Your task to perform on an android device: change timer sound Image 0: 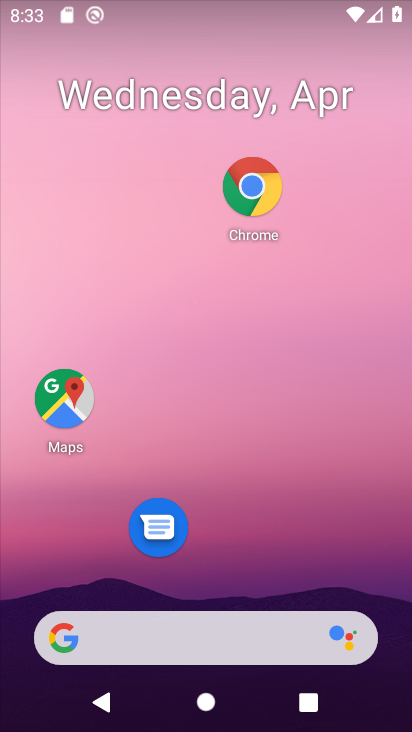
Step 0: click (318, 232)
Your task to perform on an android device: change timer sound Image 1: 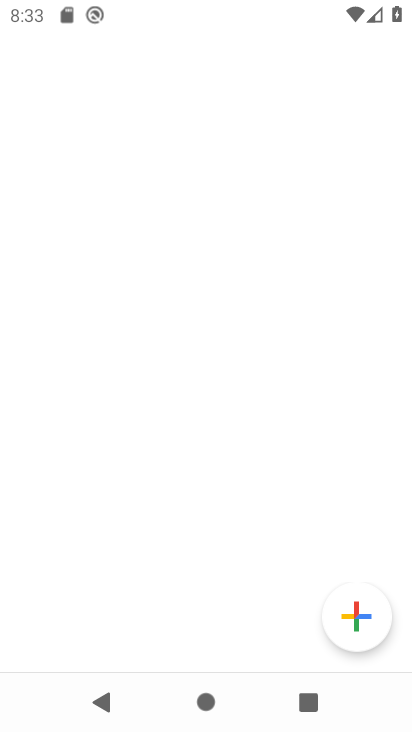
Step 1: press home button
Your task to perform on an android device: change timer sound Image 2: 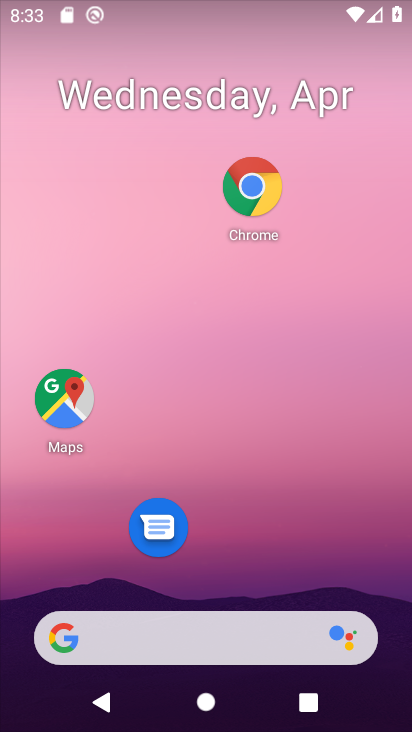
Step 2: drag from (245, 592) to (324, 211)
Your task to perform on an android device: change timer sound Image 3: 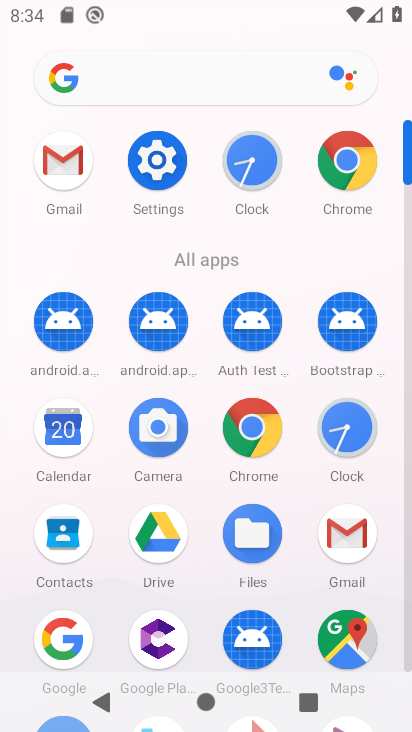
Step 3: click (350, 416)
Your task to perform on an android device: change timer sound Image 4: 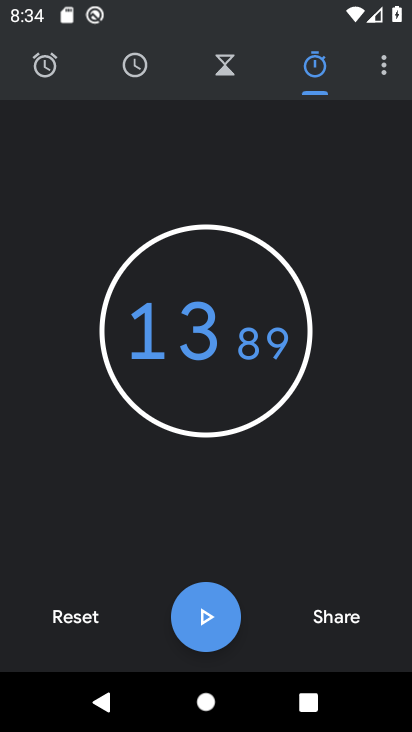
Step 4: click (383, 70)
Your task to perform on an android device: change timer sound Image 5: 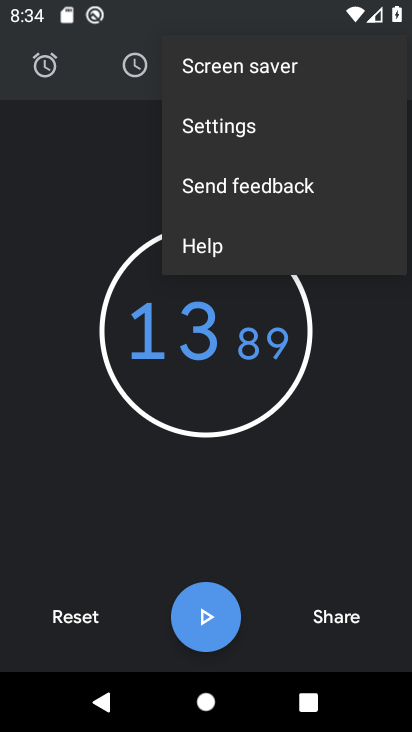
Step 5: click (277, 129)
Your task to perform on an android device: change timer sound Image 6: 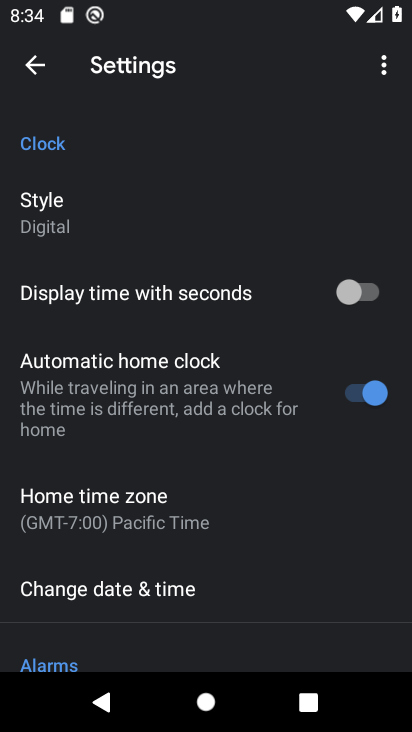
Step 6: drag from (180, 528) to (196, 194)
Your task to perform on an android device: change timer sound Image 7: 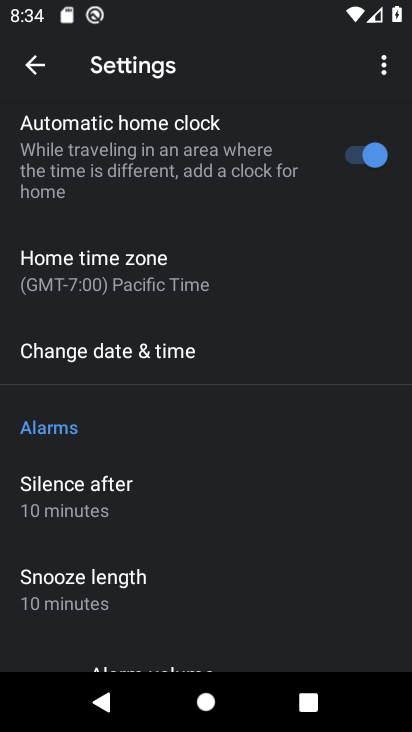
Step 7: drag from (161, 571) to (236, 203)
Your task to perform on an android device: change timer sound Image 8: 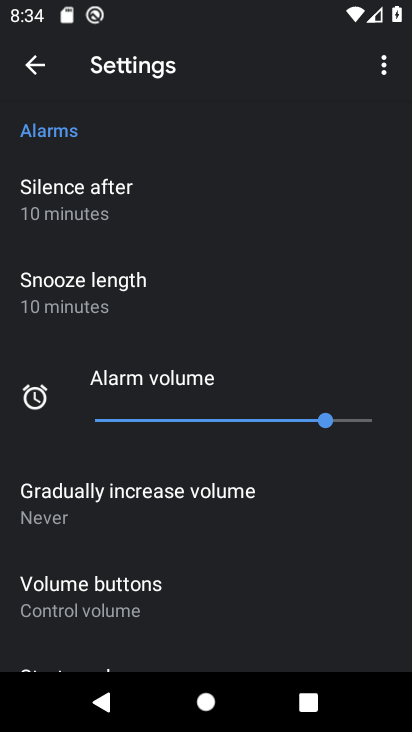
Step 8: drag from (185, 479) to (257, 182)
Your task to perform on an android device: change timer sound Image 9: 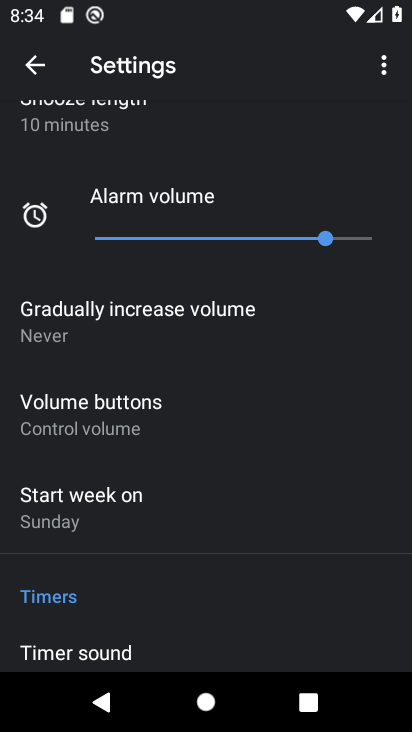
Step 9: drag from (129, 516) to (186, 318)
Your task to perform on an android device: change timer sound Image 10: 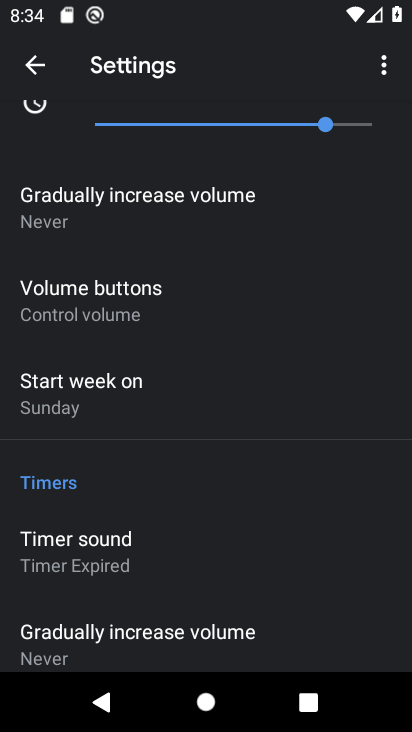
Step 10: click (92, 556)
Your task to perform on an android device: change timer sound Image 11: 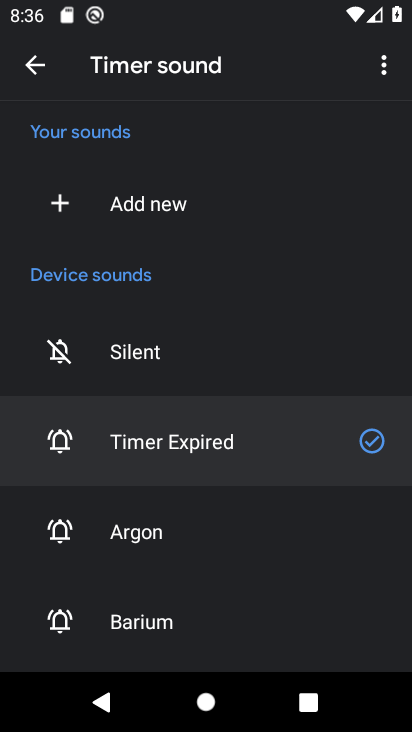
Step 11: click (174, 546)
Your task to perform on an android device: change timer sound Image 12: 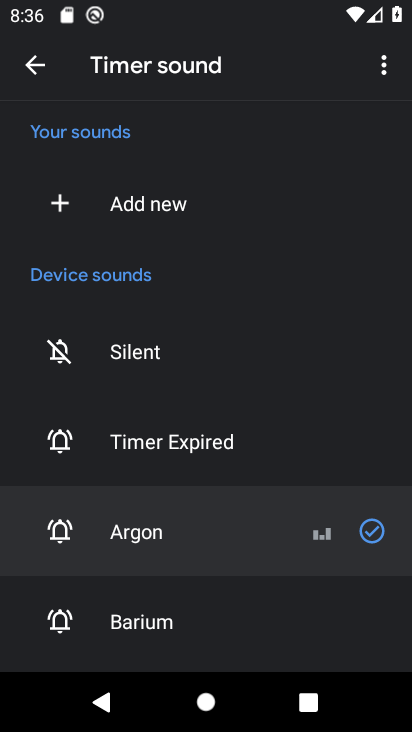
Step 12: task complete